Your task to perform on an android device: Open sound settings Image 0: 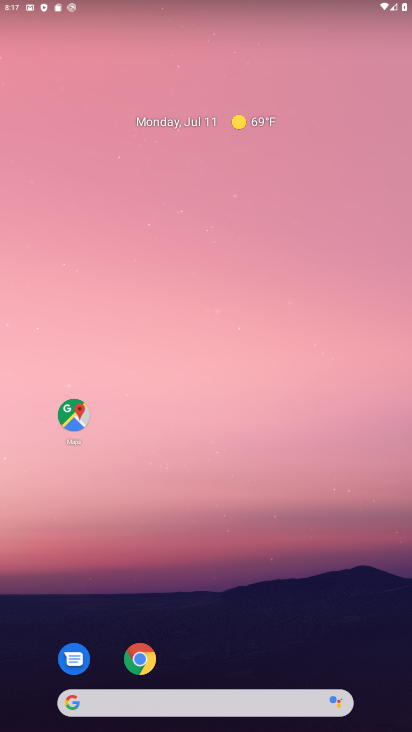
Step 0: drag from (243, 689) to (336, 109)
Your task to perform on an android device: Open sound settings Image 1: 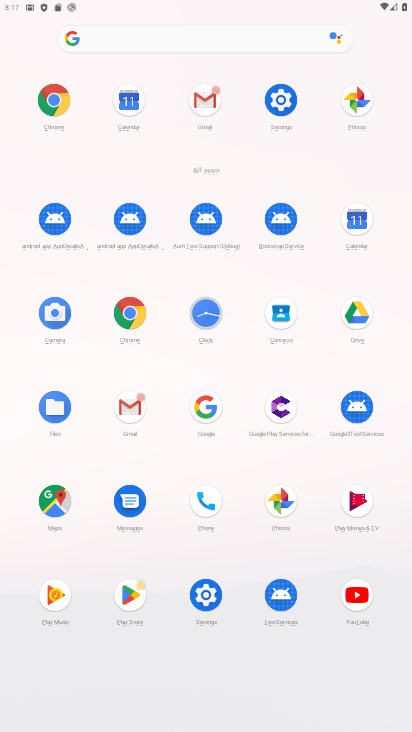
Step 1: click (210, 602)
Your task to perform on an android device: Open sound settings Image 2: 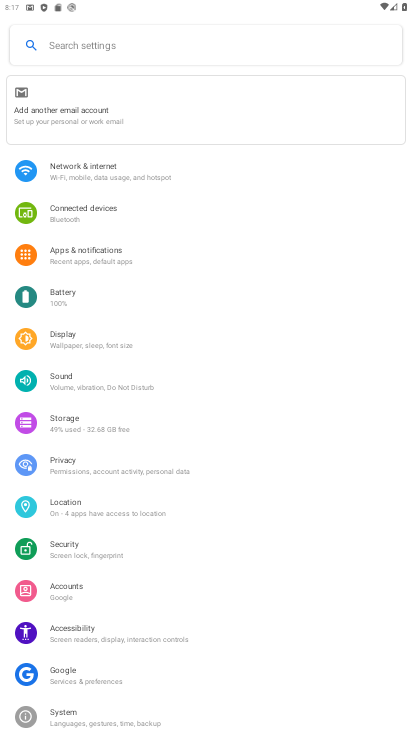
Step 2: click (98, 386)
Your task to perform on an android device: Open sound settings Image 3: 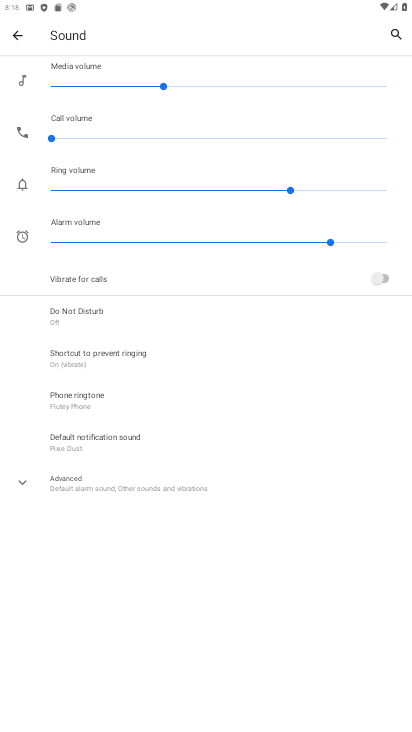
Step 3: task complete